Your task to perform on an android device: delete a single message in the gmail app Image 0: 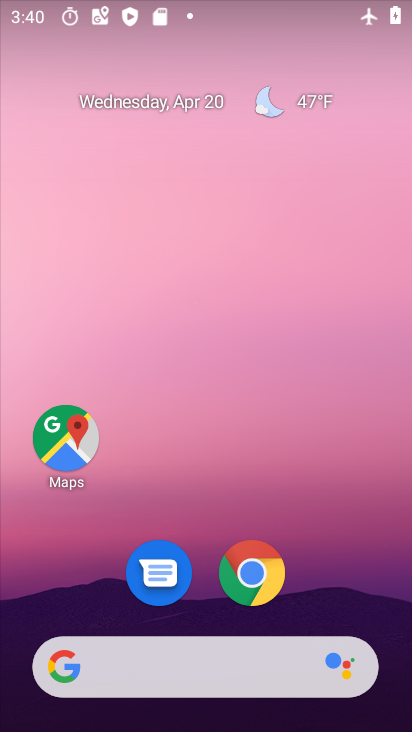
Step 0: drag from (211, 727) to (212, 172)
Your task to perform on an android device: delete a single message in the gmail app Image 1: 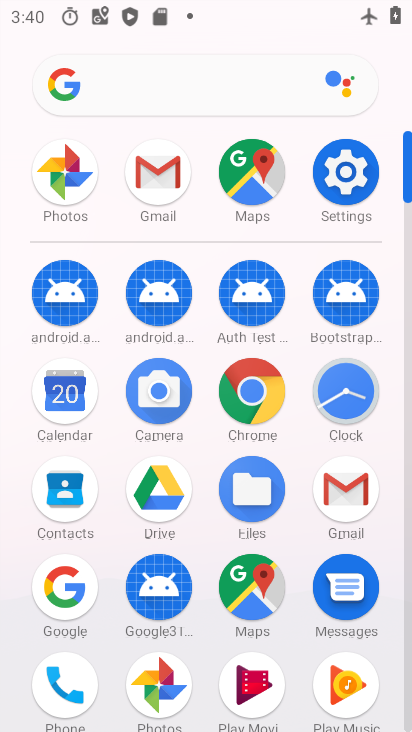
Step 1: click (352, 496)
Your task to perform on an android device: delete a single message in the gmail app Image 2: 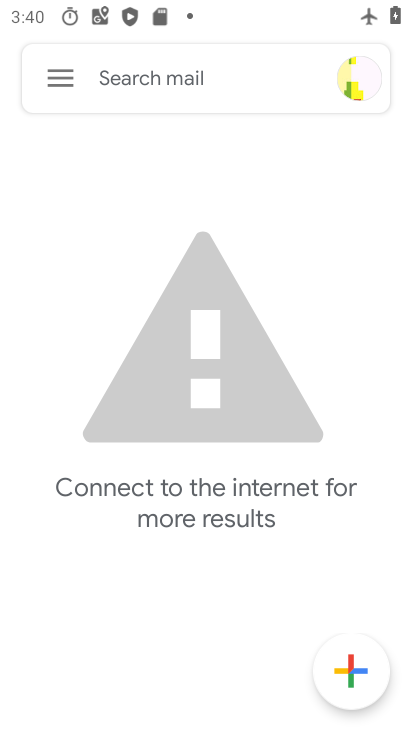
Step 2: task complete